Your task to perform on an android device: Open Android settings Image 0: 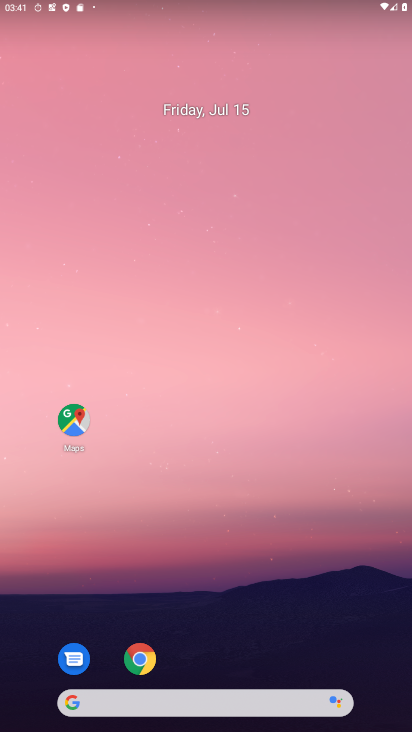
Step 0: drag from (270, 639) to (272, 104)
Your task to perform on an android device: Open Android settings Image 1: 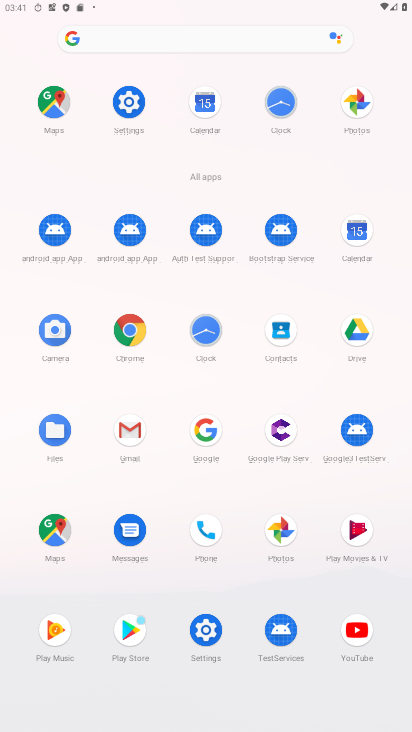
Step 1: click (133, 104)
Your task to perform on an android device: Open Android settings Image 2: 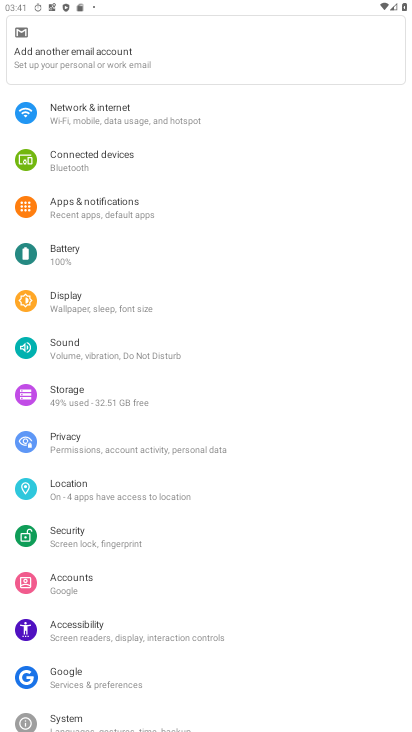
Step 2: click (72, 723)
Your task to perform on an android device: Open Android settings Image 3: 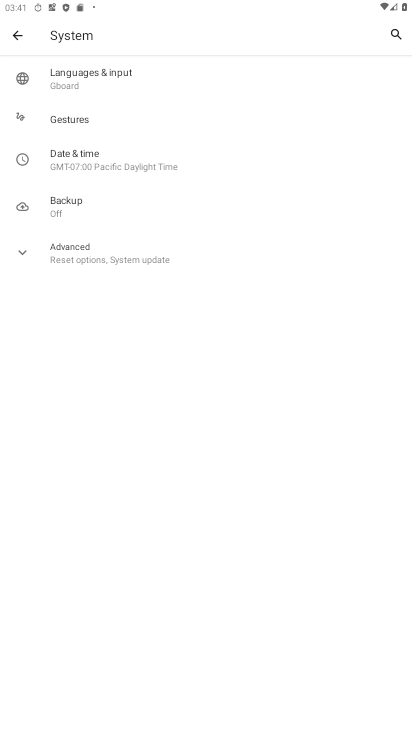
Step 3: task complete